Your task to perform on an android device: toggle translation in the chrome app Image 0: 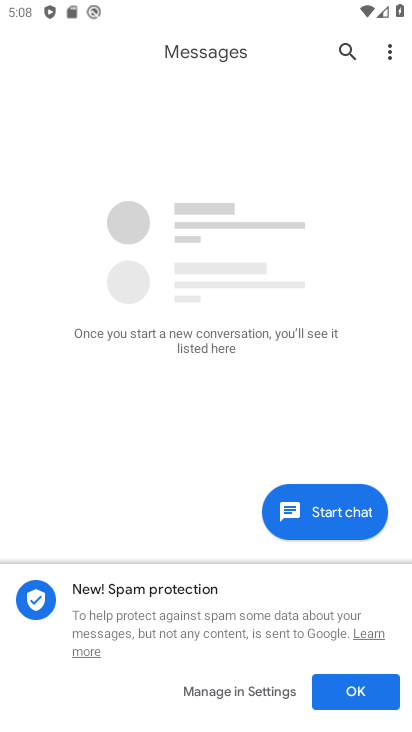
Step 0: press home button
Your task to perform on an android device: toggle translation in the chrome app Image 1: 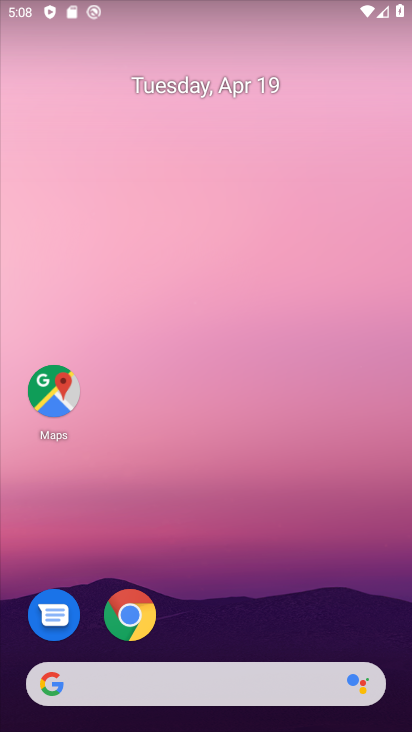
Step 1: click (131, 614)
Your task to perform on an android device: toggle translation in the chrome app Image 2: 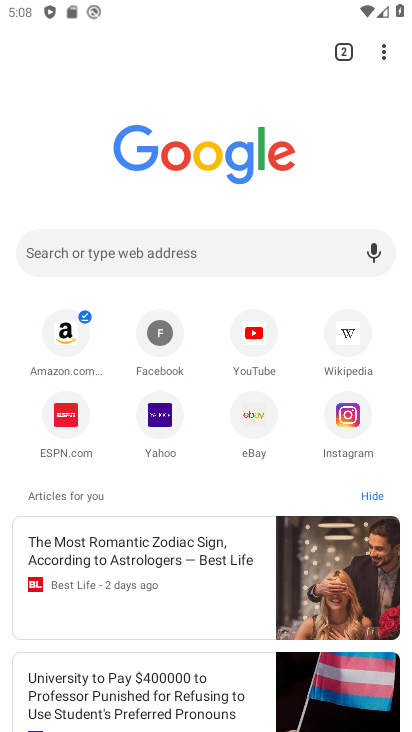
Step 2: click (385, 49)
Your task to perform on an android device: toggle translation in the chrome app Image 3: 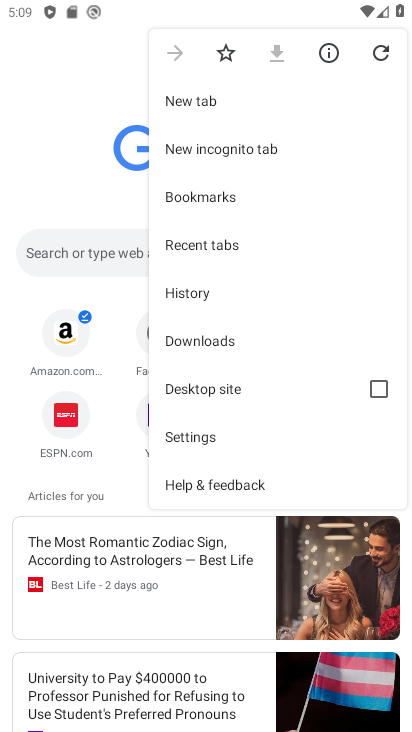
Step 3: click (189, 434)
Your task to perform on an android device: toggle translation in the chrome app Image 4: 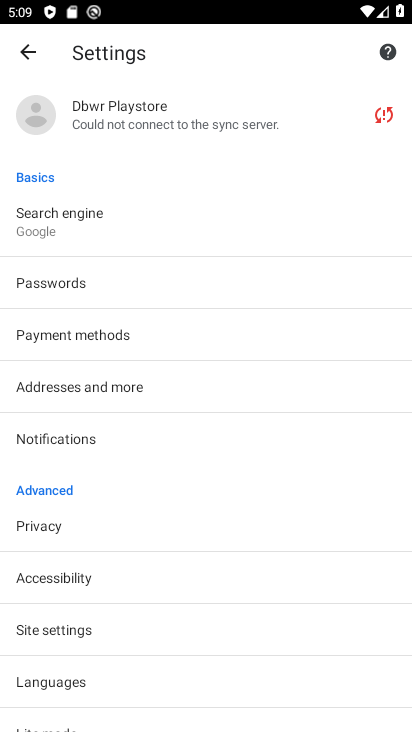
Step 4: click (58, 675)
Your task to perform on an android device: toggle translation in the chrome app Image 5: 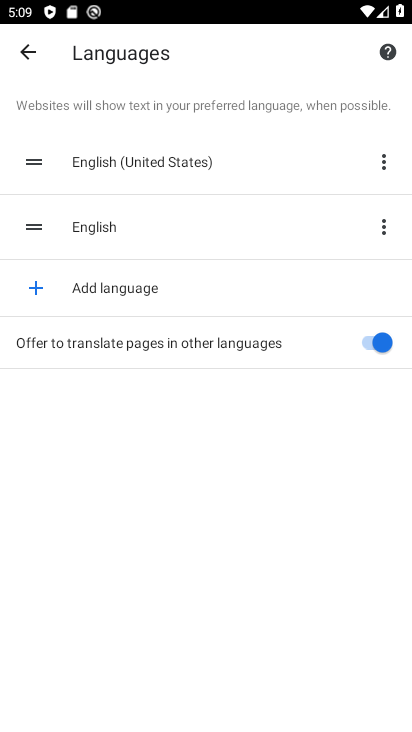
Step 5: click (365, 345)
Your task to perform on an android device: toggle translation in the chrome app Image 6: 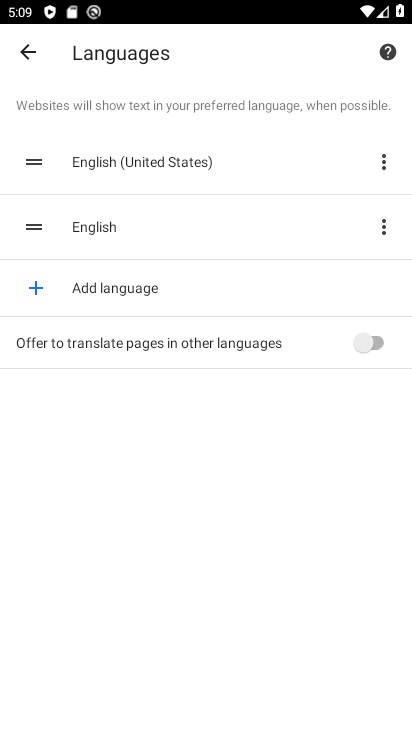
Step 6: task complete